Your task to perform on an android device: Is it going to rain today? Image 0: 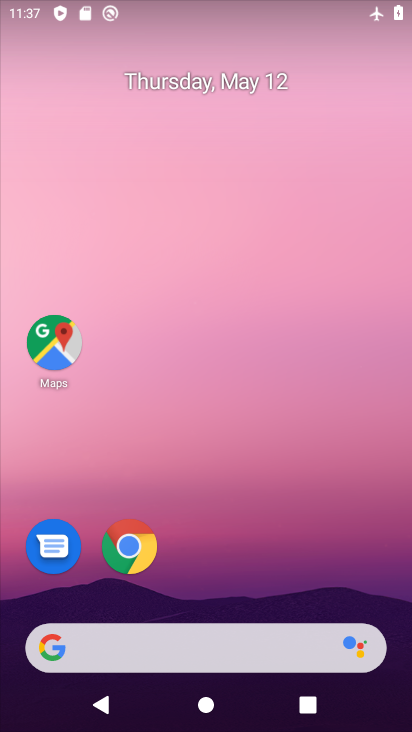
Step 0: drag from (233, 726) to (244, 105)
Your task to perform on an android device: Is it going to rain today? Image 1: 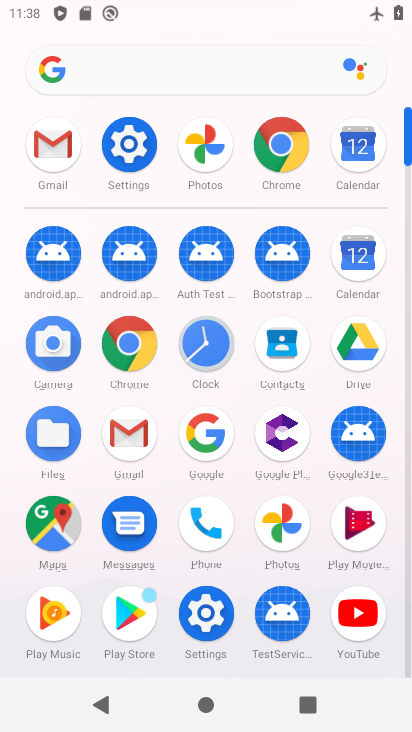
Step 1: click (206, 435)
Your task to perform on an android device: Is it going to rain today? Image 2: 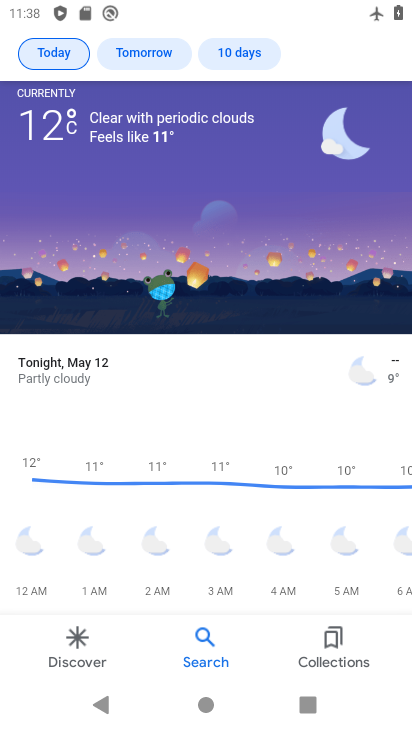
Step 2: task complete